Your task to perform on an android device: show emergency info Image 0: 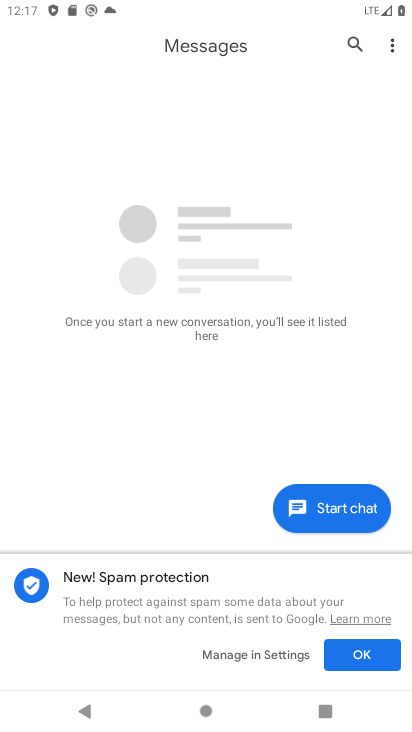
Step 0: press home button
Your task to perform on an android device: show emergency info Image 1: 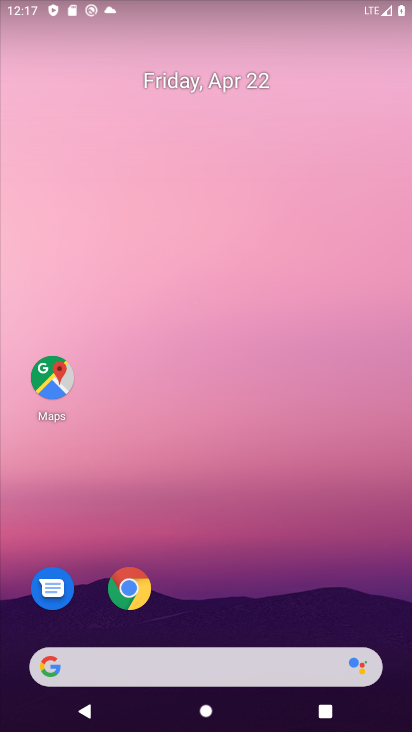
Step 1: drag from (167, 693) to (186, 139)
Your task to perform on an android device: show emergency info Image 2: 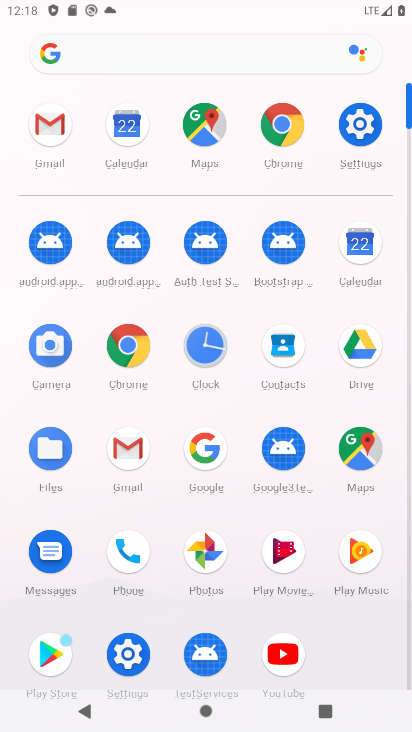
Step 2: click (356, 120)
Your task to perform on an android device: show emergency info Image 3: 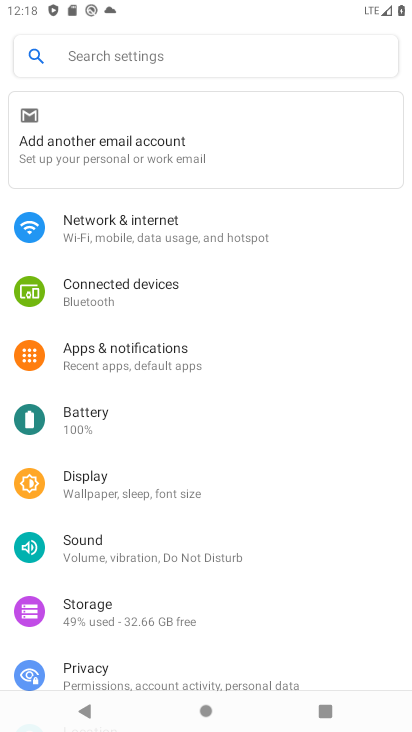
Step 3: click (144, 52)
Your task to perform on an android device: show emergency info Image 4: 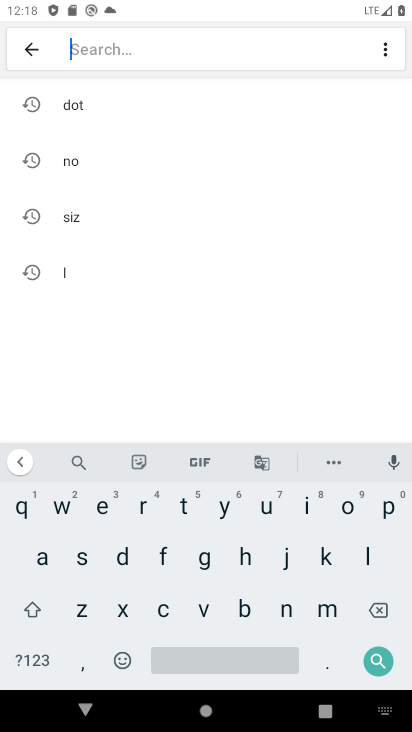
Step 4: click (101, 508)
Your task to perform on an android device: show emergency info Image 5: 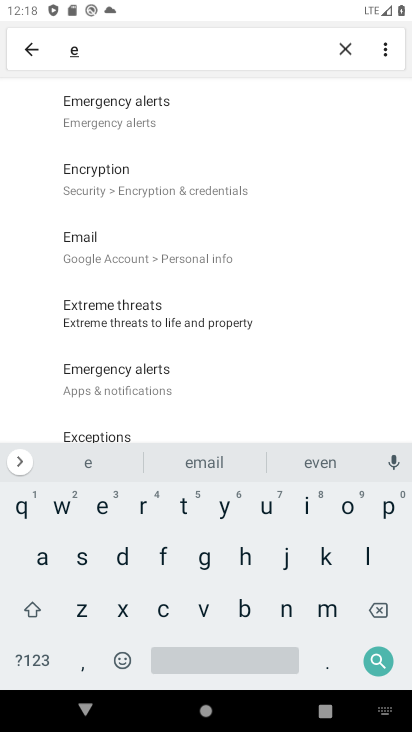
Step 5: click (328, 613)
Your task to perform on an android device: show emergency info Image 6: 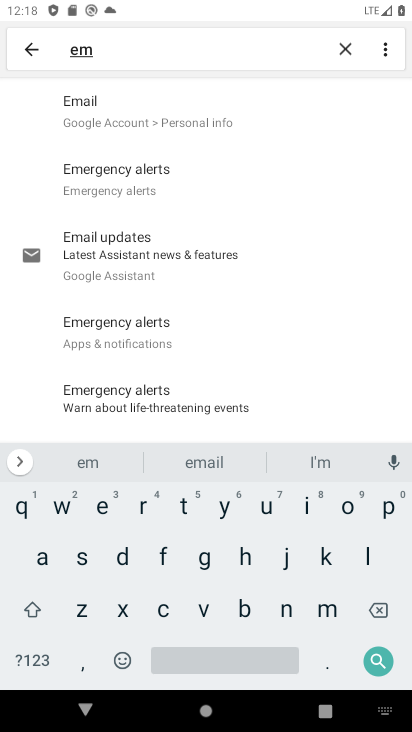
Step 6: click (98, 509)
Your task to perform on an android device: show emergency info Image 7: 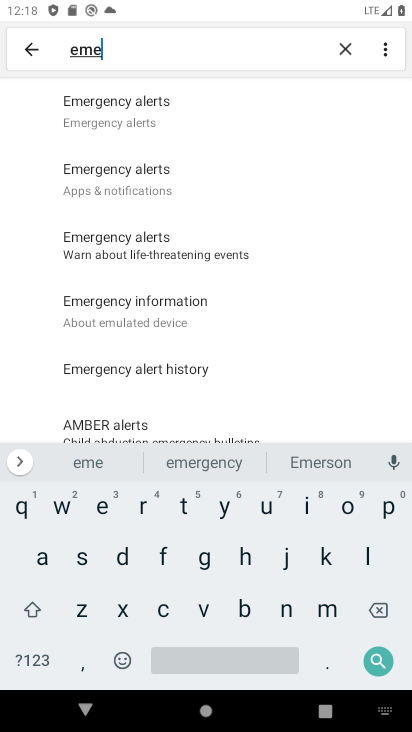
Step 7: click (186, 461)
Your task to perform on an android device: show emergency info Image 8: 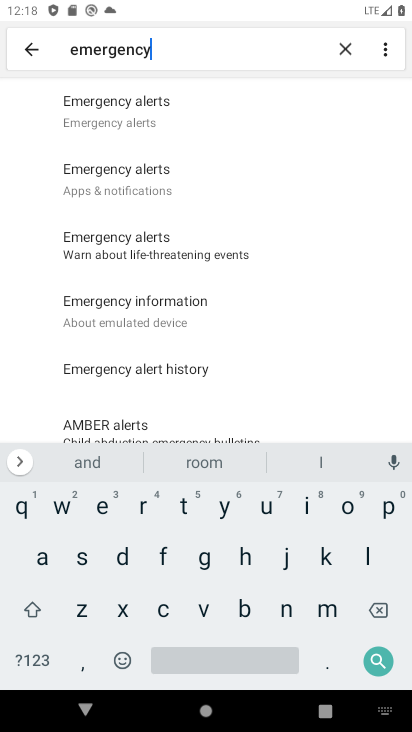
Step 8: click (306, 512)
Your task to perform on an android device: show emergency info Image 9: 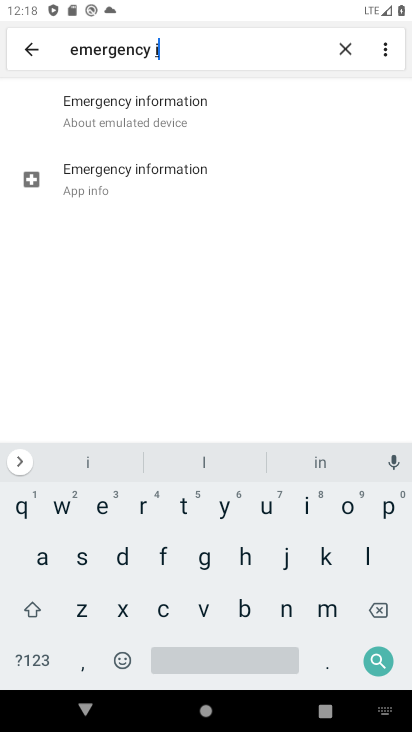
Step 9: click (184, 115)
Your task to perform on an android device: show emergency info Image 10: 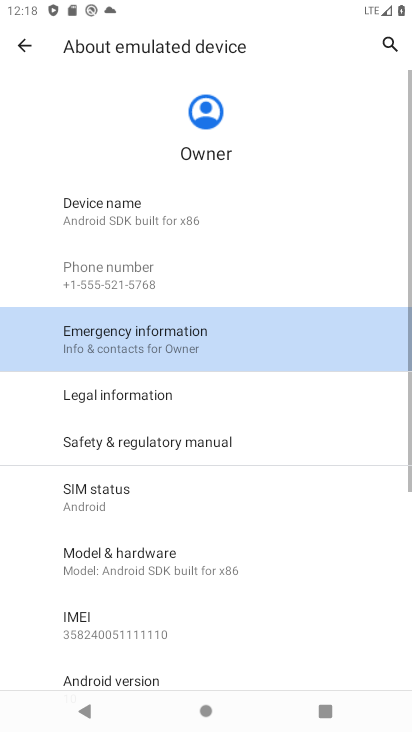
Step 10: click (118, 319)
Your task to perform on an android device: show emergency info Image 11: 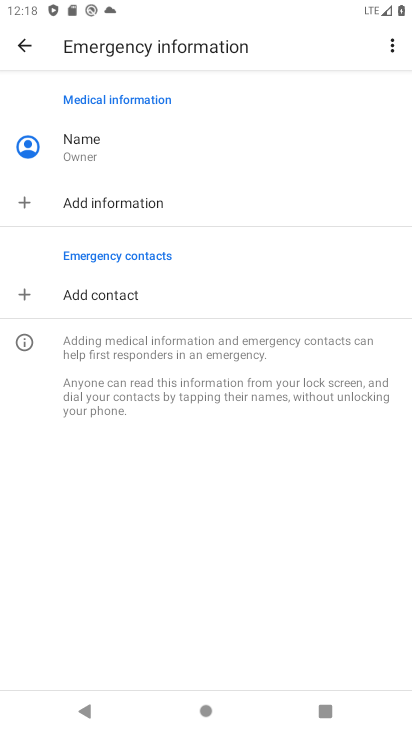
Step 11: task complete